Your task to perform on an android device: Is it going to rain today? Image 0: 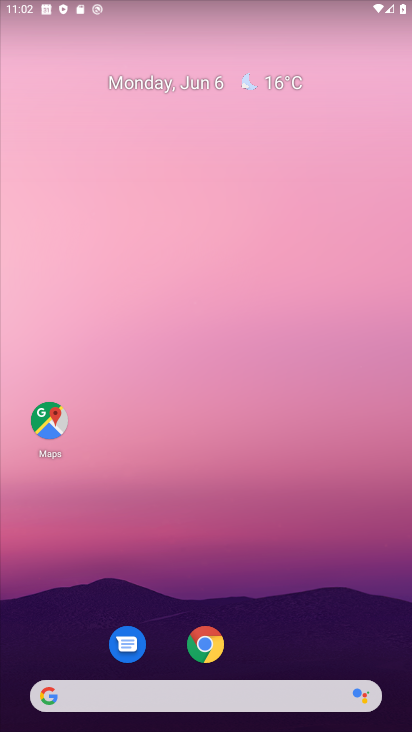
Step 0: click (253, 693)
Your task to perform on an android device: Is it going to rain today? Image 1: 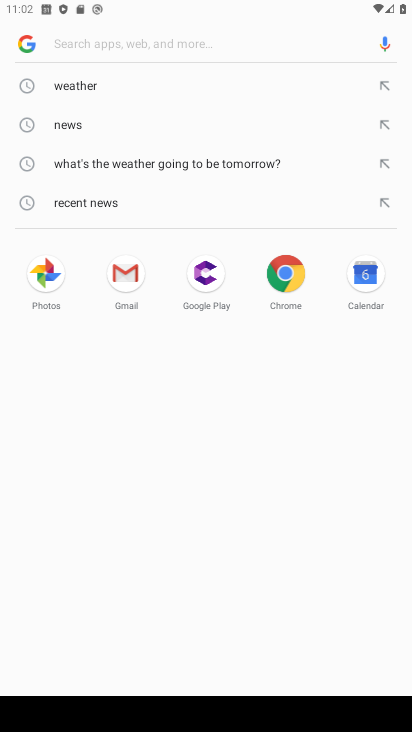
Step 1: type "Is it going to rain today?"
Your task to perform on an android device: Is it going to rain today? Image 2: 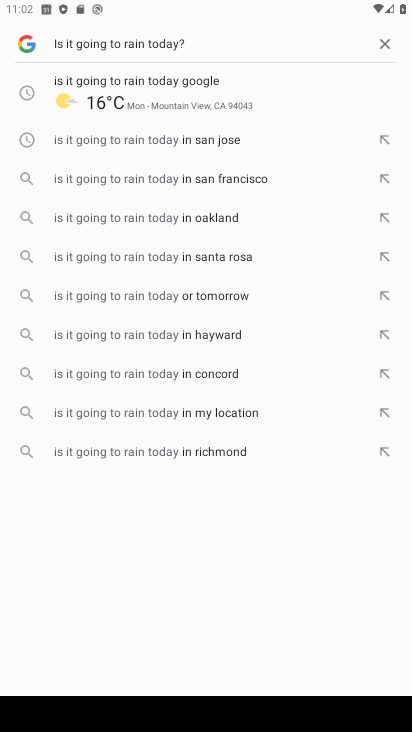
Step 2: click (215, 98)
Your task to perform on an android device: Is it going to rain today? Image 3: 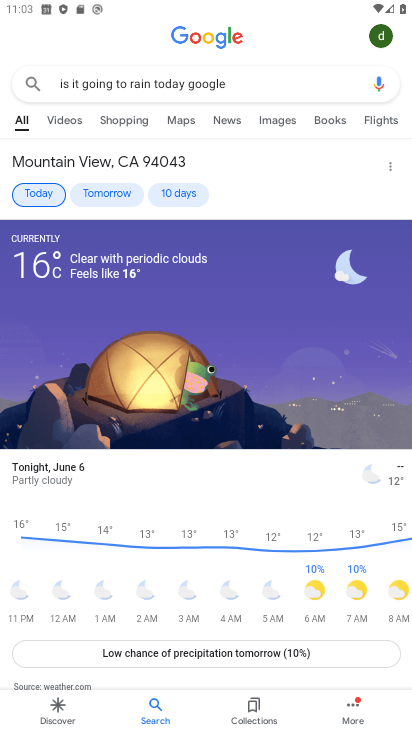
Step 3: task complete